Your task to perform on an android device: What is the news today? Image 0: 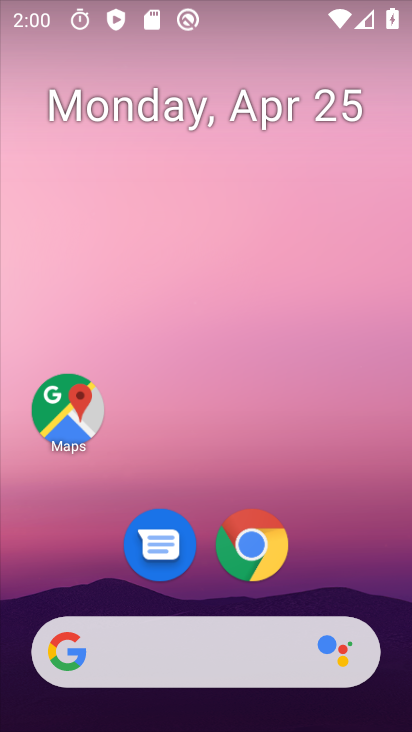
Step 0: click (261, 540)
Your task to perform on an android device: What is the news today? Image 1: 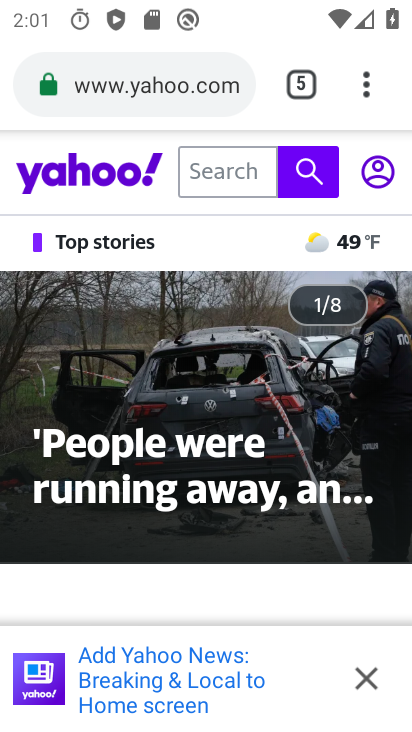
Step 1: click (309, 78)
Your task to perform on an android device: What is the news today? Image 2: 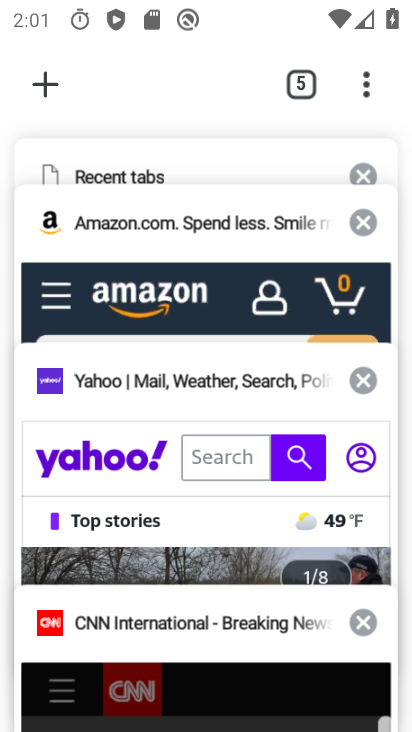
Step 2: click (46, 84)
Your task to perform on an android device: What is the news today? Image 3: 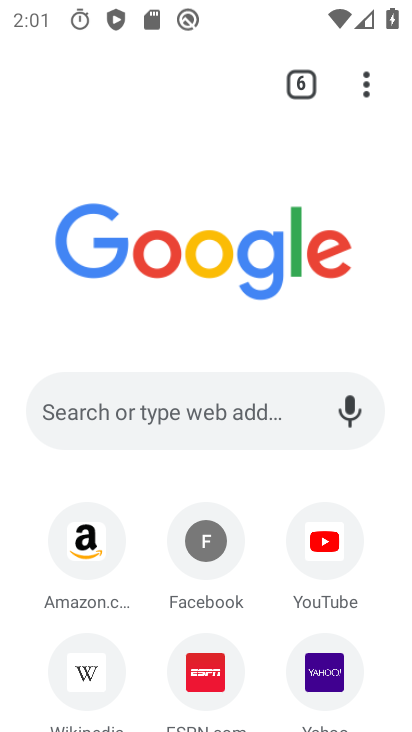
Step 3: click (214, 394)
Your task to perform on an android device: What is the news today? Image 4: 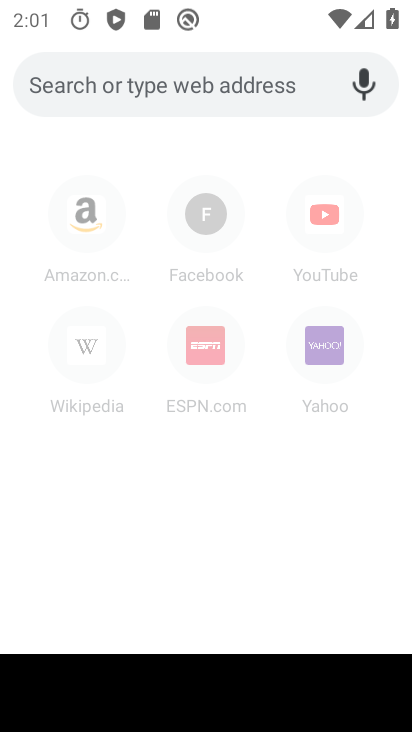
Step 4: type "news today"
Your task to perform on an android device: What is the news today? Image 5: 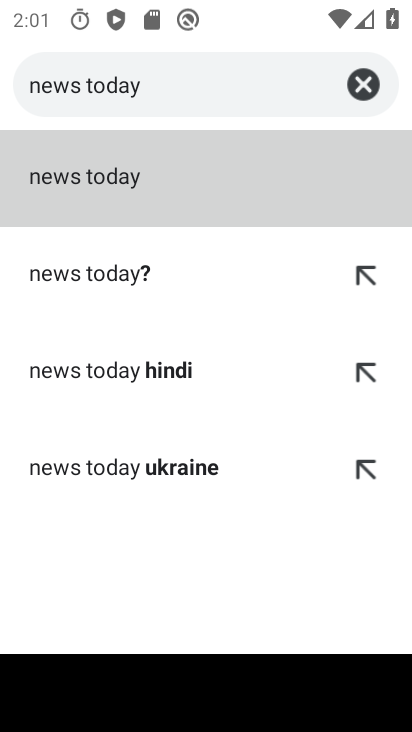
Step 5: click (191, 203)
Your task to perform on an android device: What is the news today? Image 6: 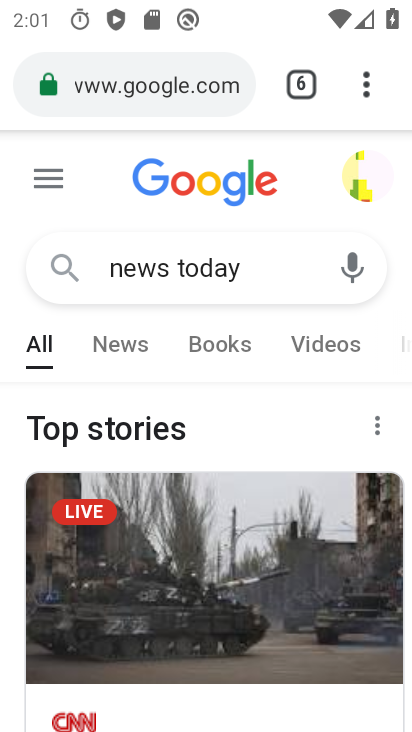
Step 6: click (125, 339)
Your task to perform on an android device: What is the news today? Image 7: 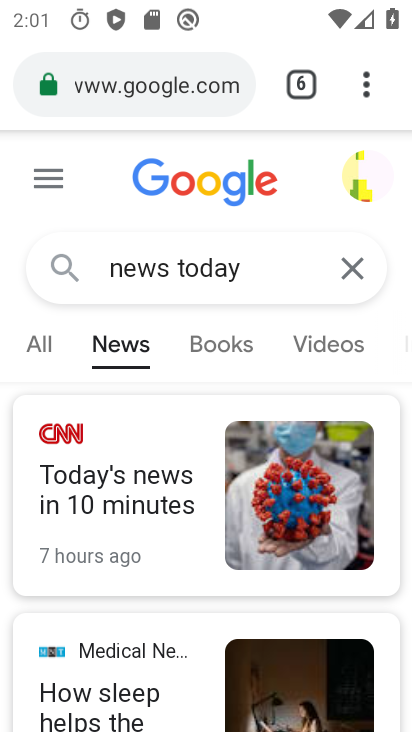
Step 7: task complete